Your task to perform on an android device: Open internet settings Image 0: 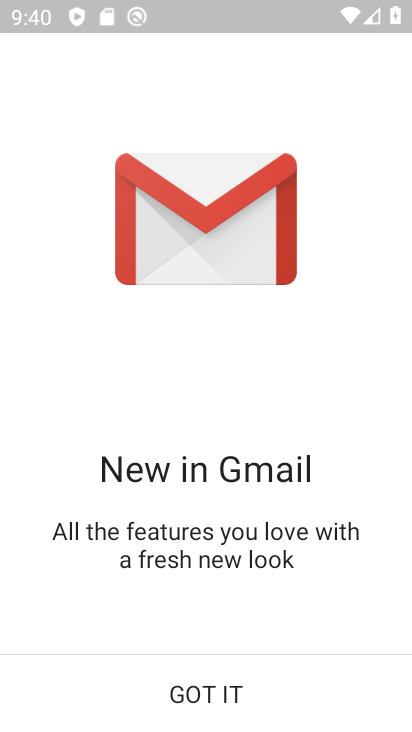
Step 0: click (139, 682)
Your task to perform on an android device: Open internet settings Image 1: 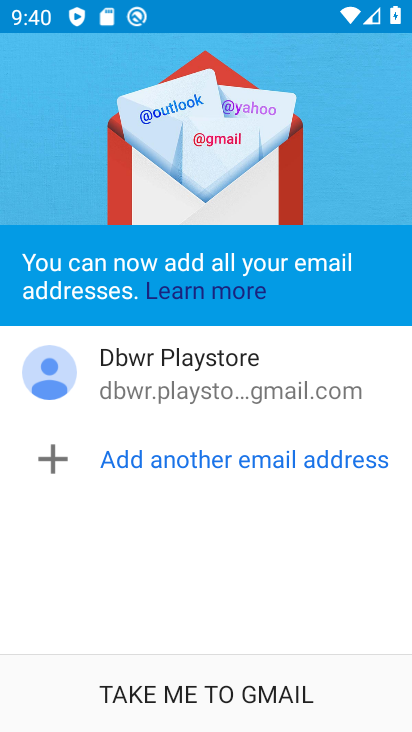
Step 1: click (207, 684)
Your task to perform on an android device: Open internet settings Image 2: 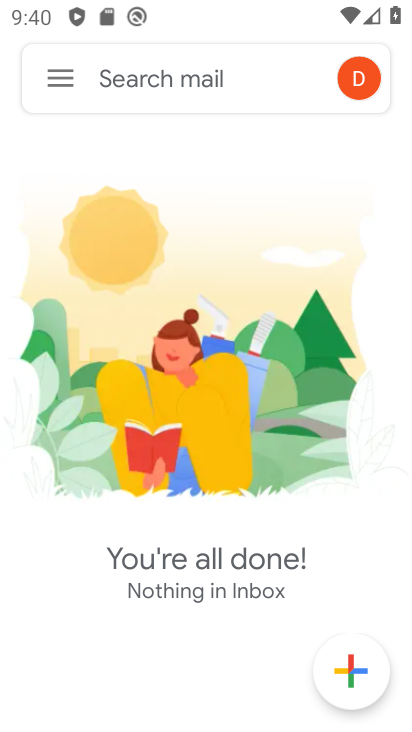
Step 2: press home button
Your task to perform on an android device: Open internet settings Image 3: 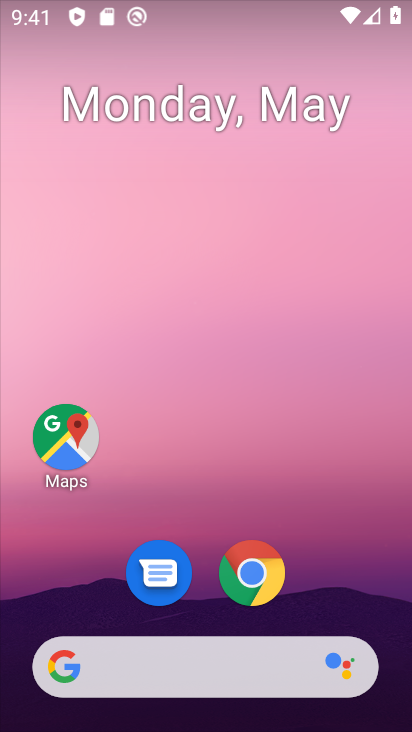
Step 3: drag from (389, 580) to (391, 217)
Your task to perform on an android device: Open internet settings Image 4: 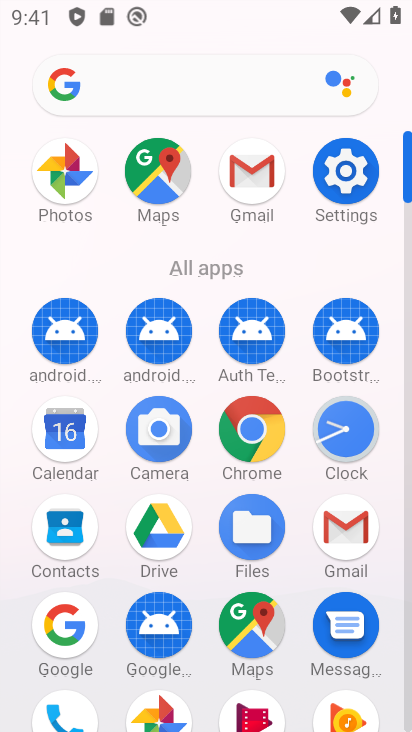
Step 4: click (407, 629)
Your task to perform on an android device: Open internet settings Image 5: 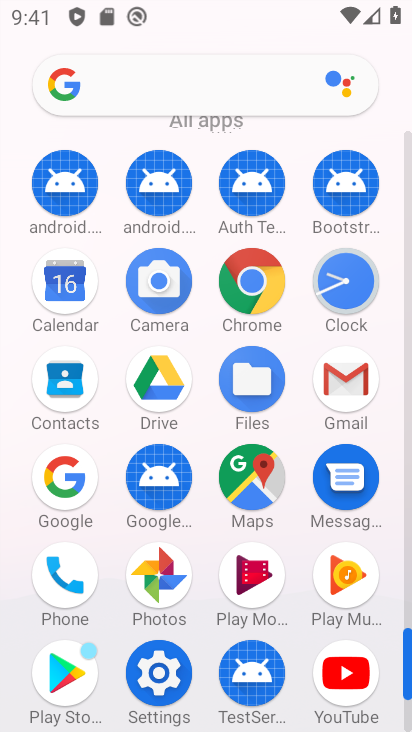
Step 5: click (140, 684)
Your task to perform on an android device: Open internet settings Image 6: 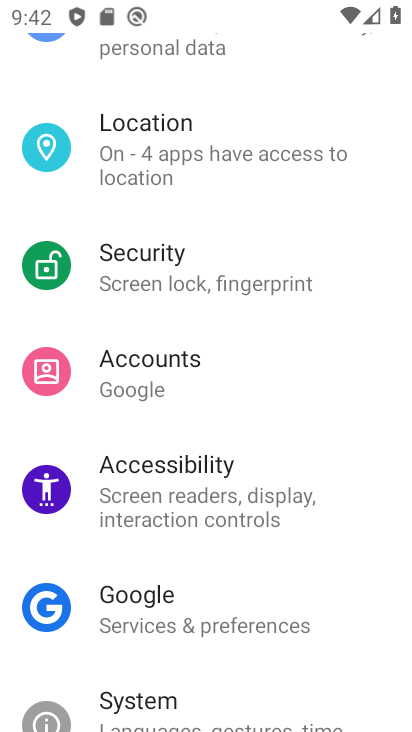
Step 6: drag from (168, 213) to (225, 657)
Your task to perform on an android device: Open internet settings Image 7: 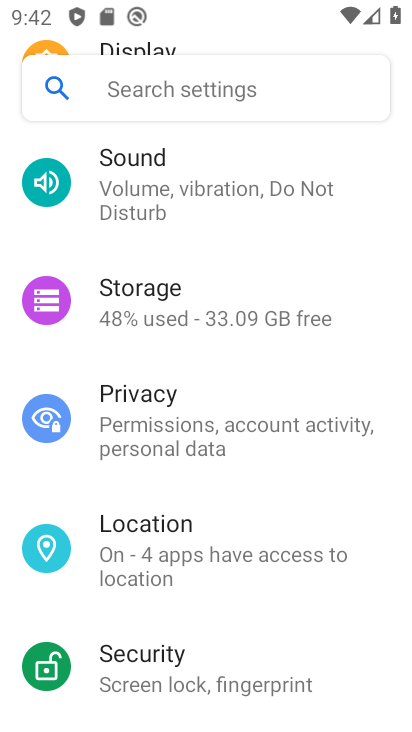
Step 7: drag from (192, 224) to (180, 720)
Your task to perform on an android device: Open internet settings Image 8: 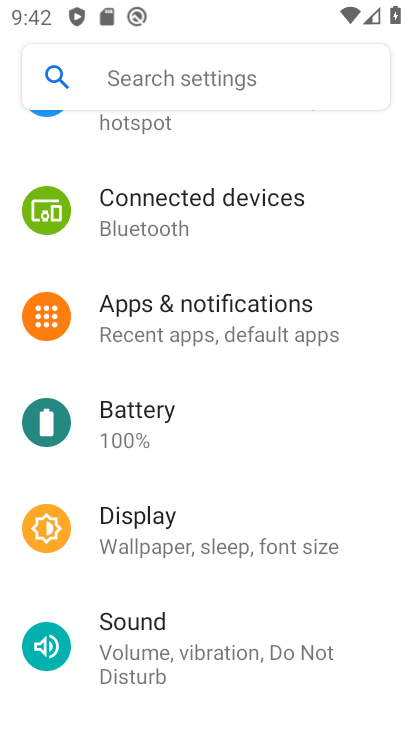
Step 8: drag from (100, 211) to (194, 610)
Your task to perform on an android device: Open internet settings Image 9: 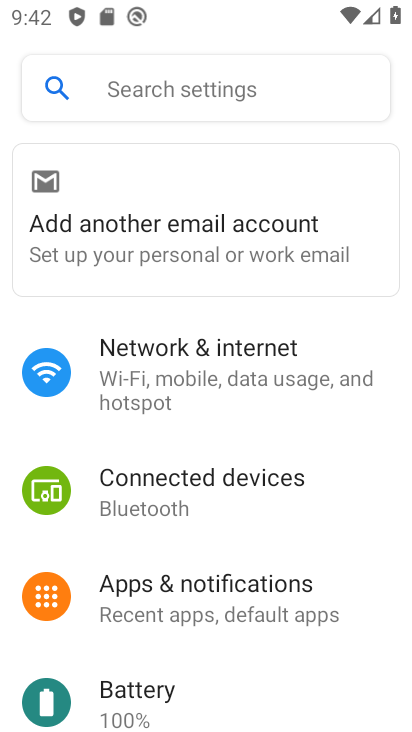
Step 9: click (179, 368)
Your task to perform on an android device: Open internet settings Image 10: 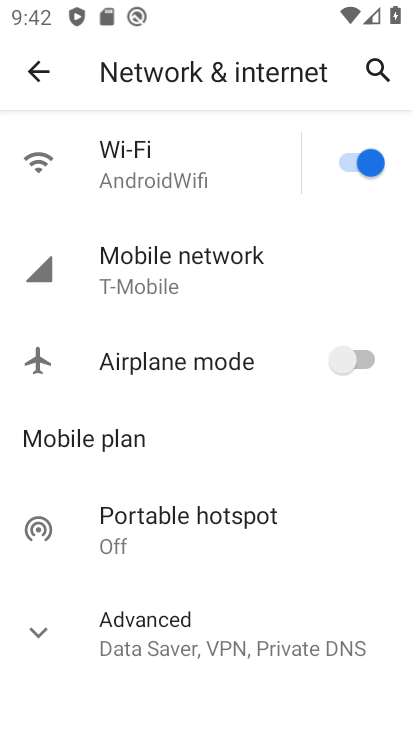
Step 10: task complete